Your task to perform on an android device: Open Google Chrome and open the bookmarks view Image 0: 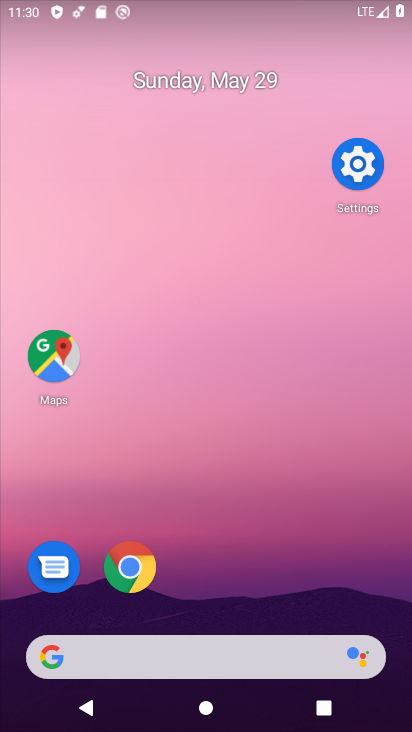
Step 0: drag from (323, 566) to (228, 183)
Your task to perform on an android device: Open Google Chrome and open the bookmarks view Image 1: 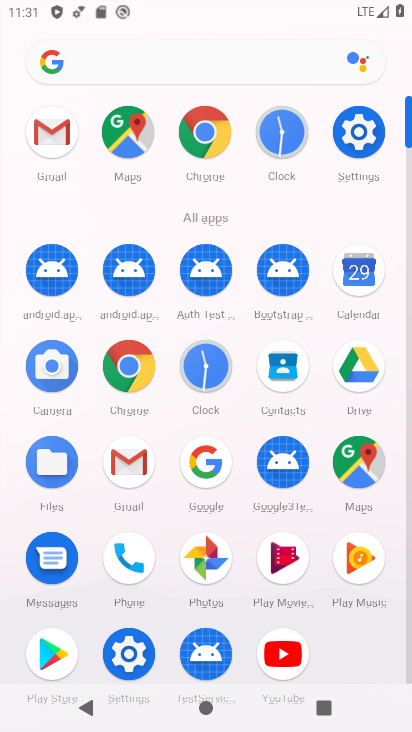
Step 1: click (145, 374)
Your task to perform on an android device: Open Google Chrome and open the bookmarks view Image 2: 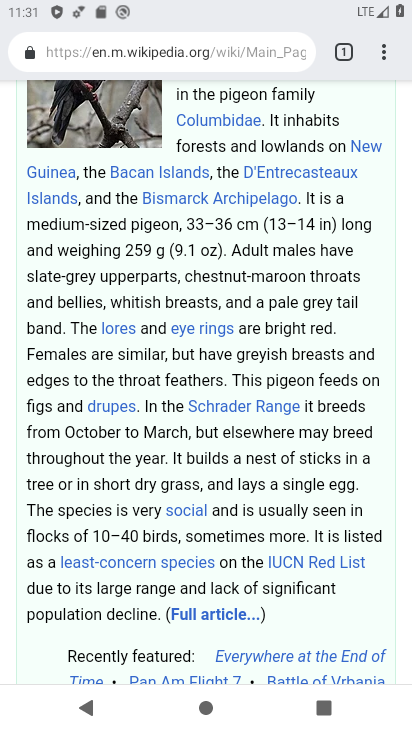
Step 2: task complete